Your task to perform on an android device: Open Google Chrome Image 0: 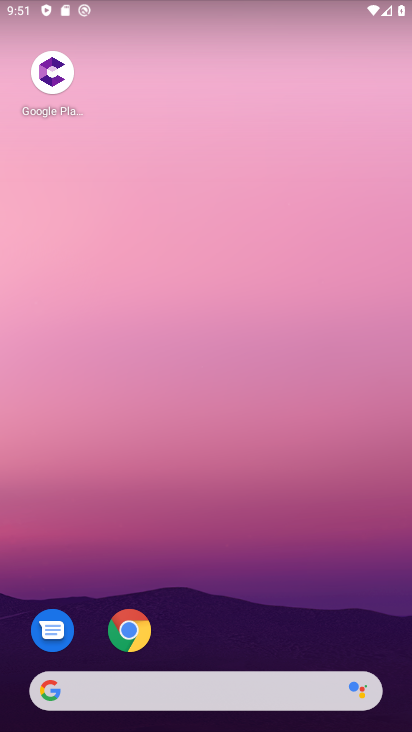
Step 0: drag from (180, 669) to (363, 7)
Your task to perform on an android device: Open Google Chrome Image 1: 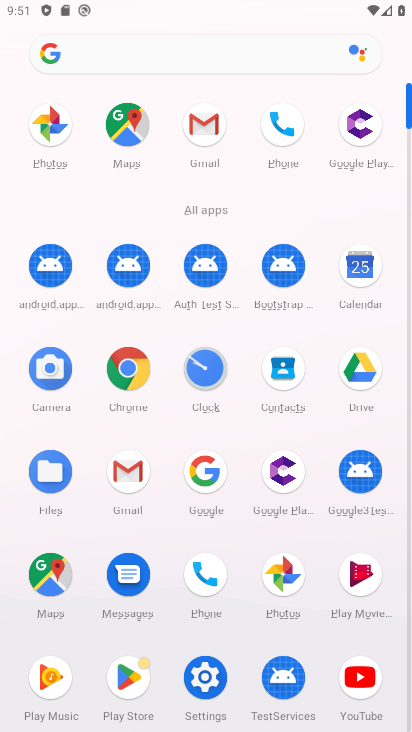
Step 1: click (140, 367)
Your task to perform on an android device: Open Google Chrome Image 2: 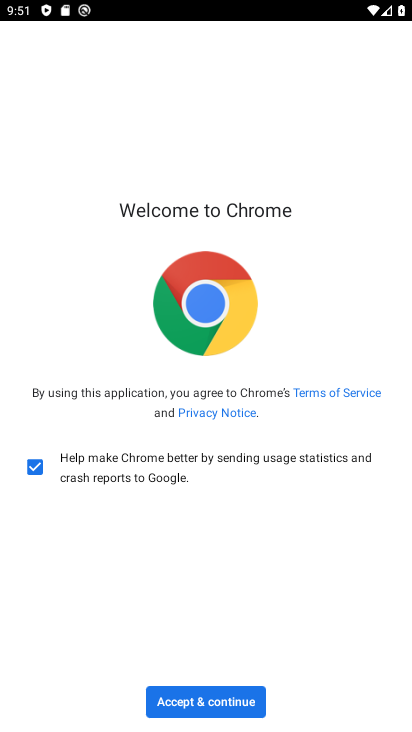
Step 2: click (193, 716)
Your task to perform on an android device: Open Google Chrome Image 3: 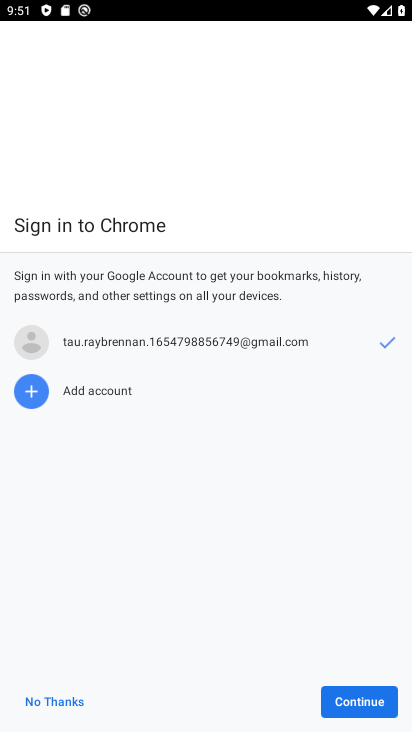
Step 3: click (364, 700)
Your task to perform on an android device: Open Google Chrome Image 4: 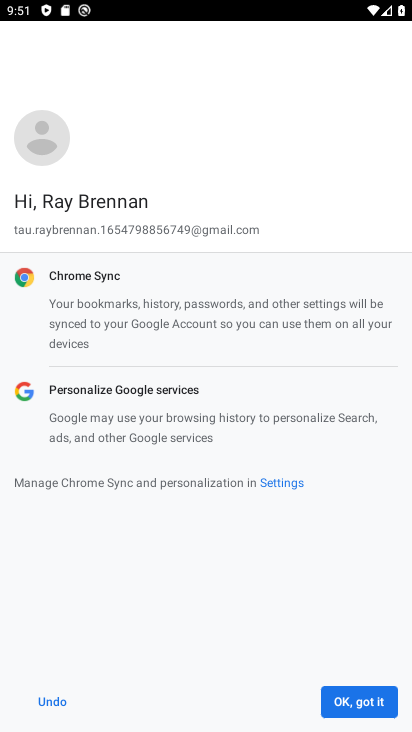
Step 4: click (377, 698)
Your task to perform on an android device: Open Google Chrome Image 5: 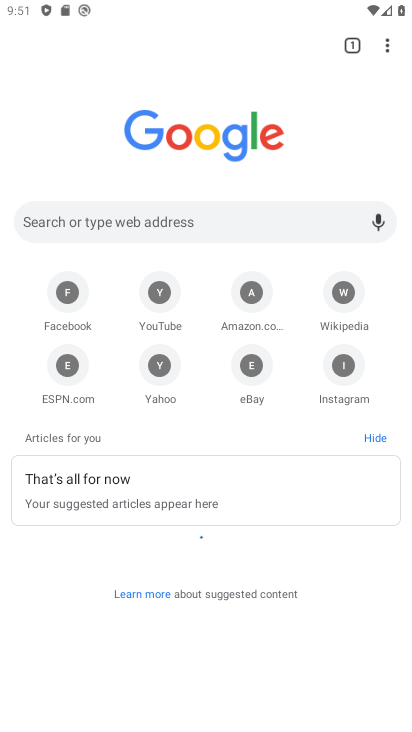
Step 5: task complete